Your task to perform on an android device: Is it going to rain today? Image 0: 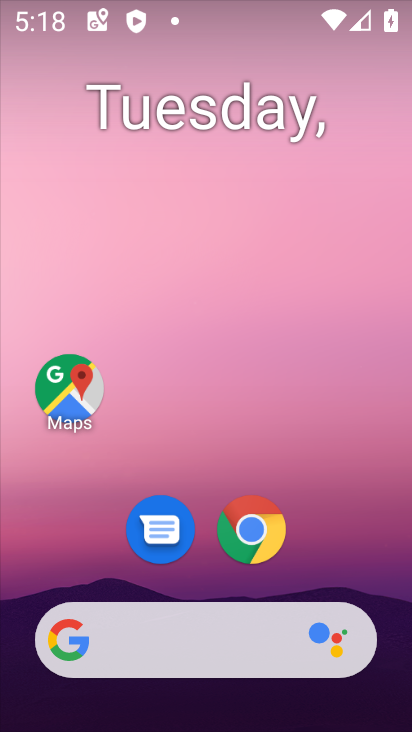
Step 0: drag from (372, 570) to (362, 94)
Your task to perform on an android device: Is it going to rain today? Image 1: 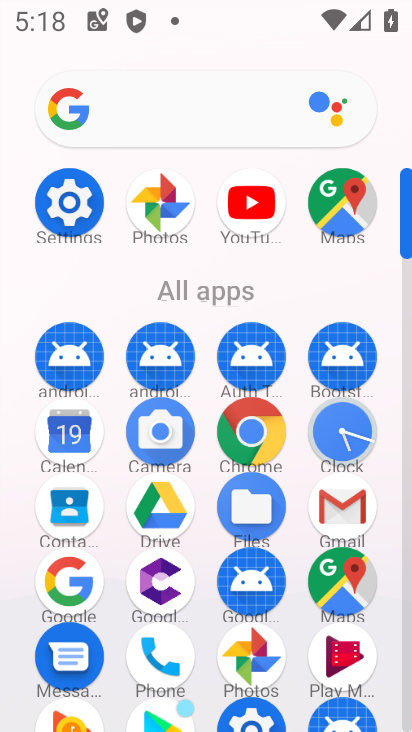
Step 1: press back button
Your task to perform on an android device: Is it going to rain today? Image 2: 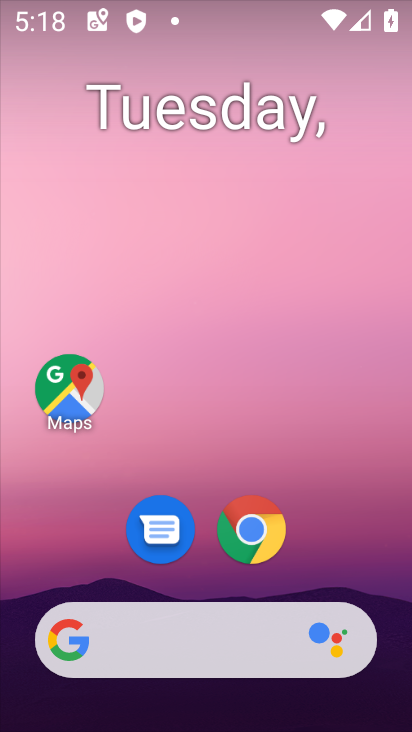
Step 2: drag from (108, 273) to (379, 273)
Your task to perform on an android device: Is it going to rain today? Image 3: 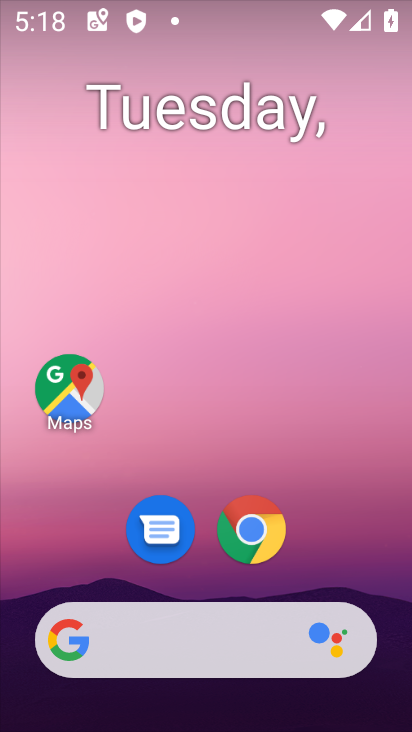
Step 3: click (379, 292)
Your task to perform on an android device: Is it going to rain today? Image 4: 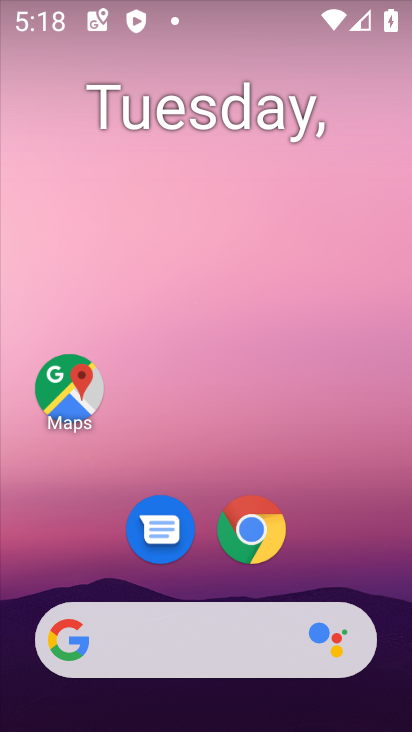
Step 4: drag from (47, 240) to (354, 29)
Your task to perform on an android device: Is it going to rain today? Image 5: 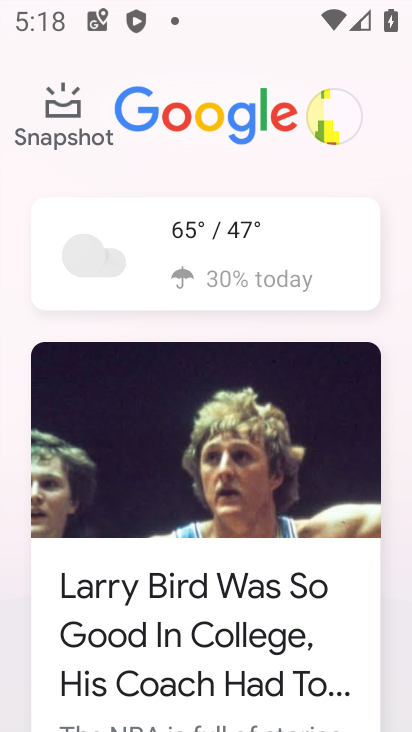
Step 5: click (161, 248)
Your task to perform on an android device: Is it going to rain today? Image 6: 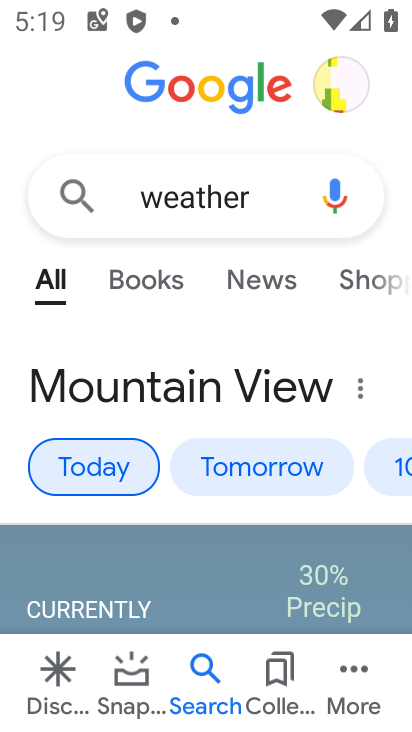
Step 6: task complete